Your task to perform on an android device: Open Google Maps and go to "Timeline" Image 0: 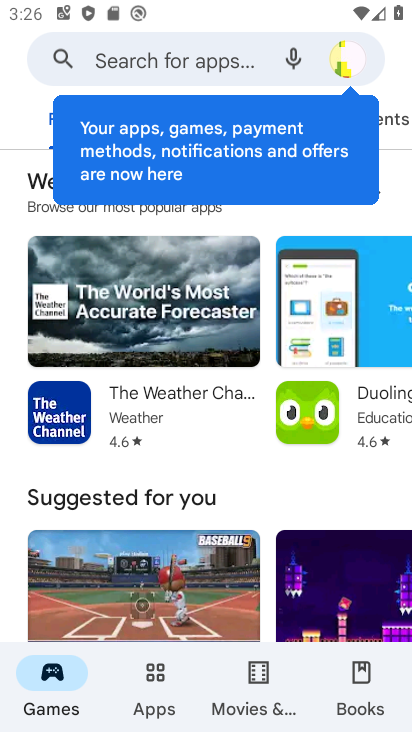
Step 0: press home button
Your task to perform on an android device: Open Google Maps and go to "Timeline" Image 1: 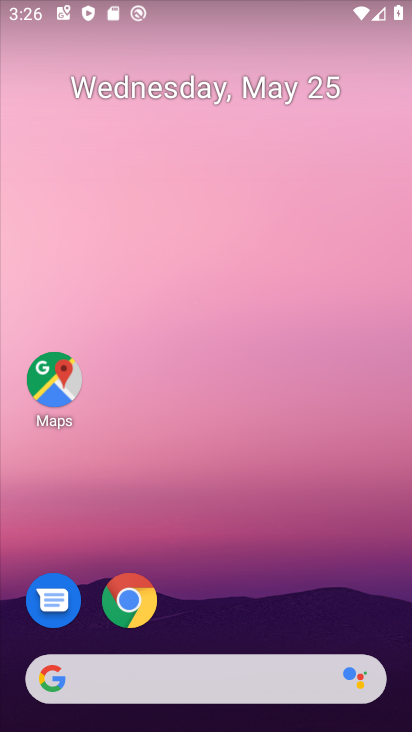
Step 1: drag from (32, 510) to (213, 196)
Your task to perform on an android device: Open Google Maps and go to "Timeline" Image 2: 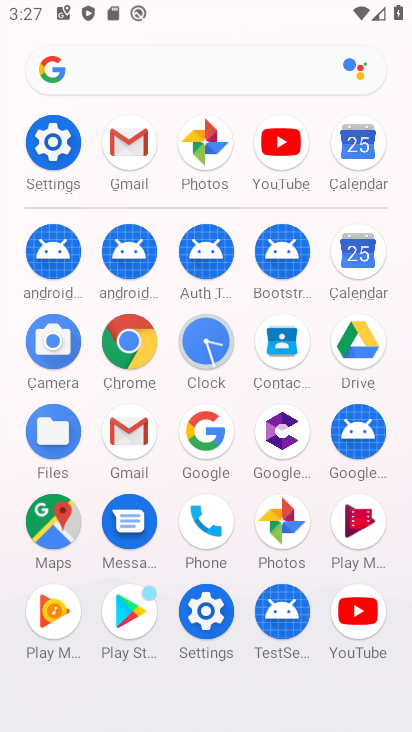
Step 2: click (49, 517)
Your task to perform on an android device: Open Google Maps and go to "Timeline" Image 3: 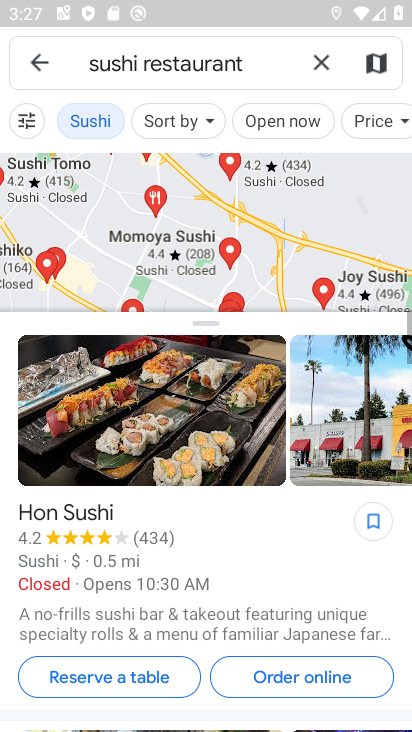
Step 3: click (315, 60)
Your task to perform on an android device: Open Google Maps and go to "Timeline" Image 4: 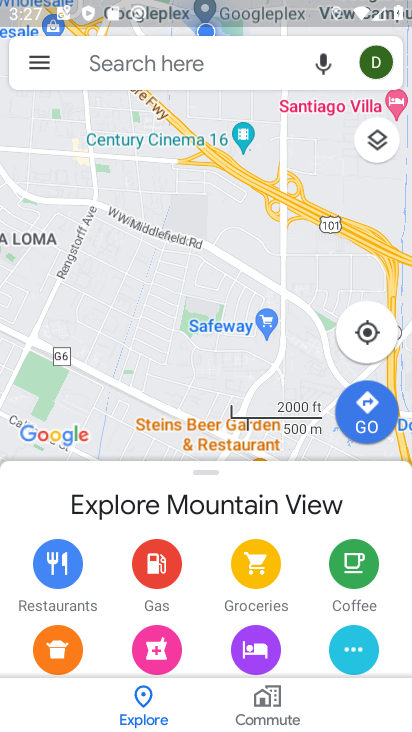
Step 4: click (40, 69)
Your task to perform on an android device: Open Google Maps and go to "Timeline" Image 5: 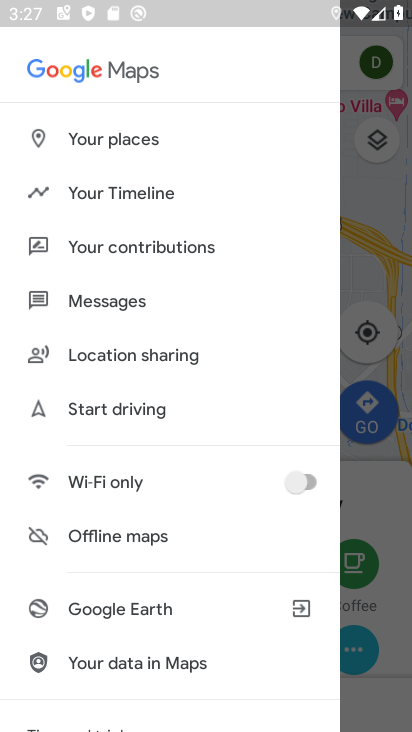
Step 5: click (157, 192)
Your task to perform on an android device: Open Google Maps and go to "Timeline" Image 6: 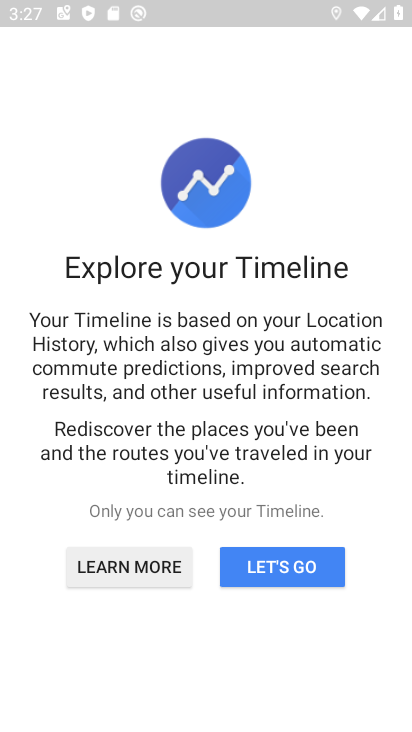
Step 6: click (227, 573)
Your task to perform on an android device: Open Google Maps and go to "Timeline" Image 7: 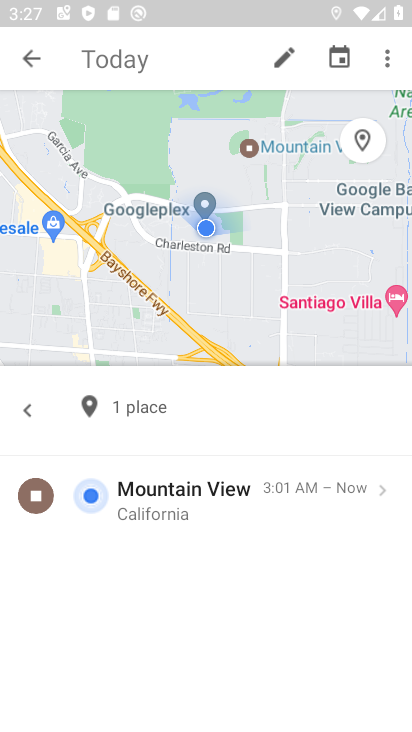
Step 7: task complete